Your task to perform on an android device: turn off translation in the chrome app Image 0: 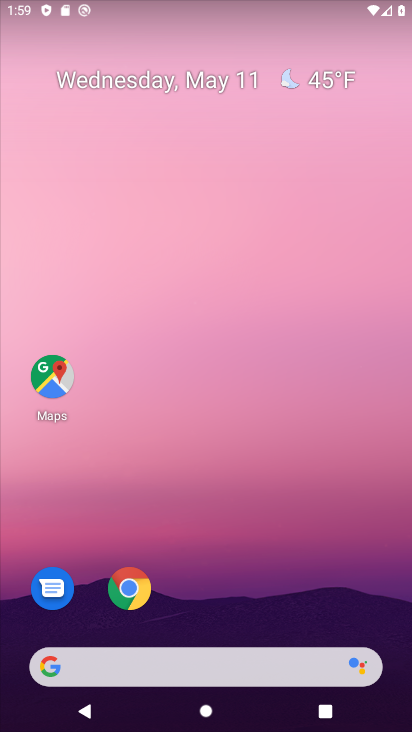
Step 0: click (138, 594)
Your task to perform on an android device: turn off translation in the chrome app Image 1: 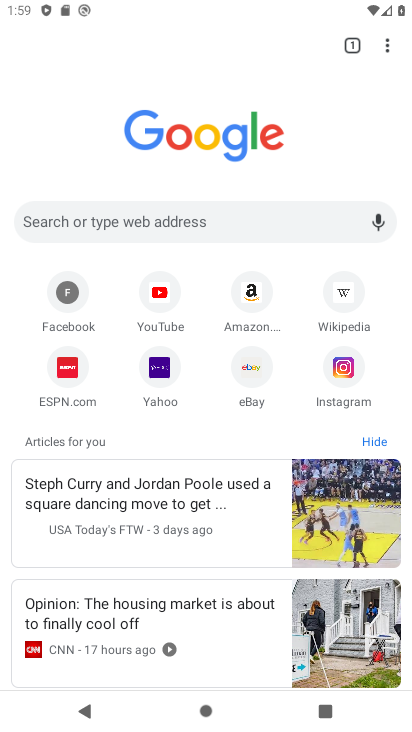
Step 1: click (386, 52)
Your task to perform on an android device: turn off translation in the chrome app Image 2: 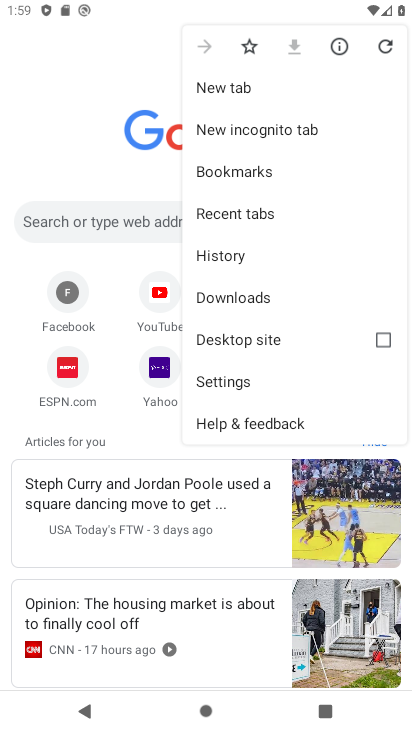
Step 2: click (228, 376)
Your task to perform on an android device: turn off translation in the chrome app Image 3: 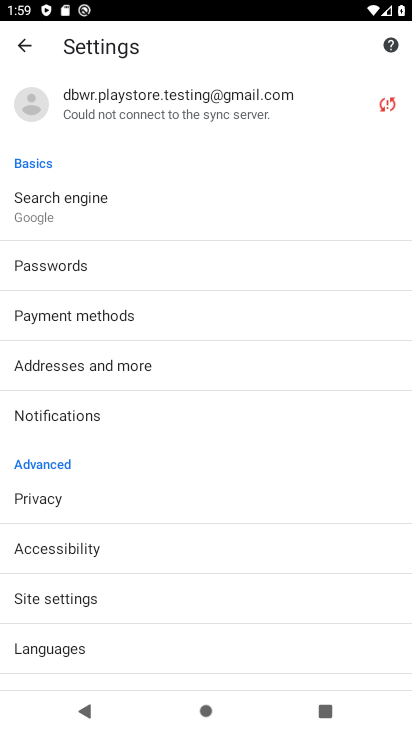
Step 3: click (101, 646)
Your task to perform on an android device: turn off translation in the chrome app Image 4: 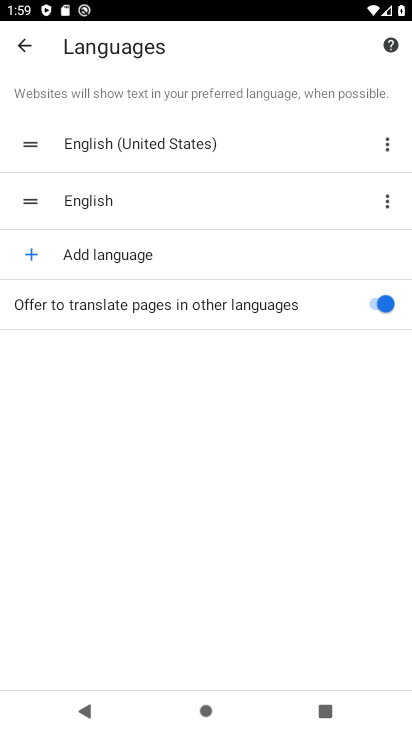
Step 4: click (378, 302)
Your task to perform on an android device: turn off translation in the chrome app Image 5: 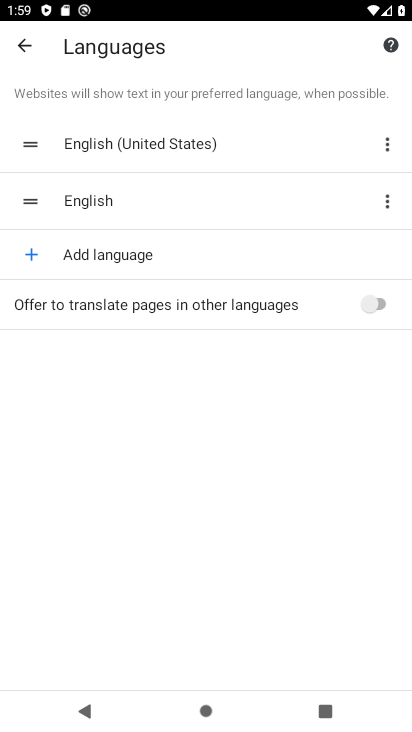
Step 5: task complete